Your task to perform on an android device: delete a single message in the gmail app Image 0: 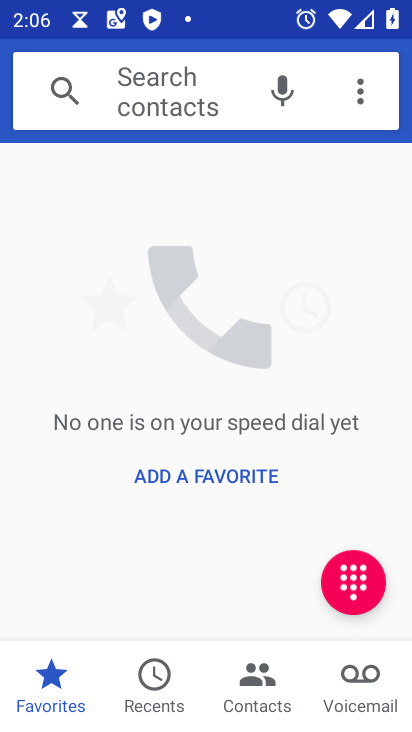
Step 0: press home button
Your task to perform on an android device: delete a single message in the gmail app Image 1: 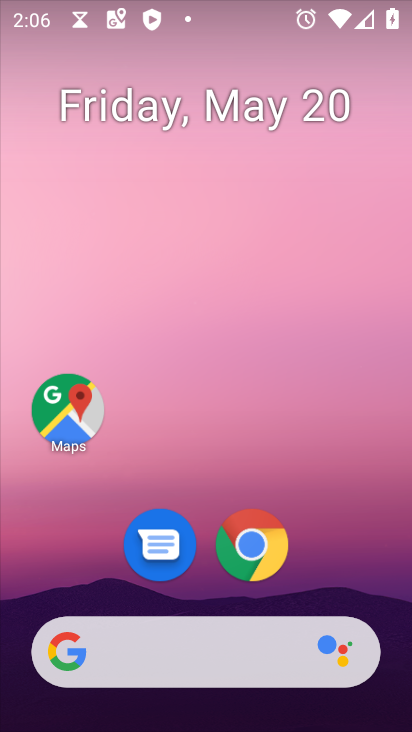
Step 1: drag from (328, 551) to (297, 207)
Your task to perform on an android device: delete a single message in the gmail app Image 2: 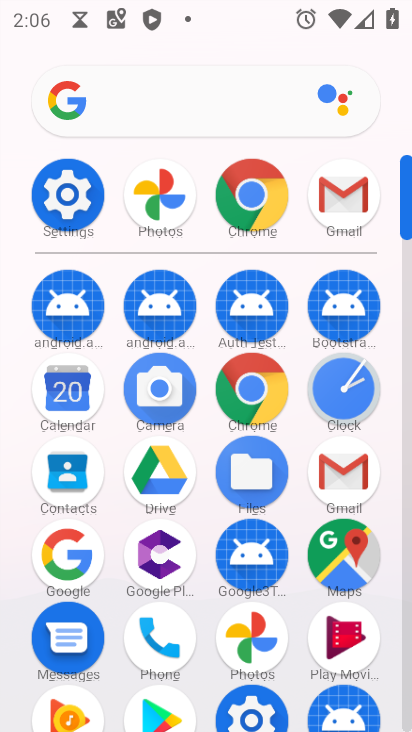
Step 2: click (345, 204)
Your task to perform on an android device: delete a single message in the gmail app Image 3: 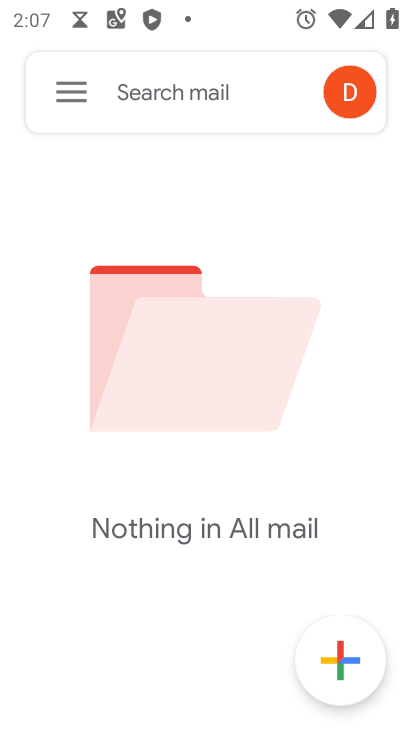
Step 3: task complete